Your task to perform on an android device: change the clock display to analog Image 0: 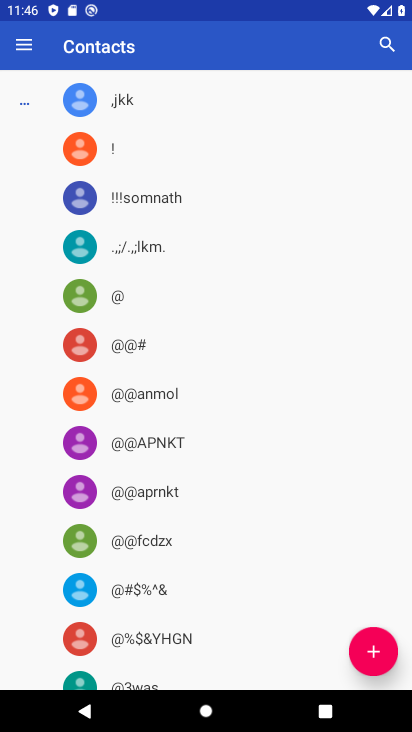
Step 0: press home button
Your task to perform on an android device: change the clock display to analog Image 1: 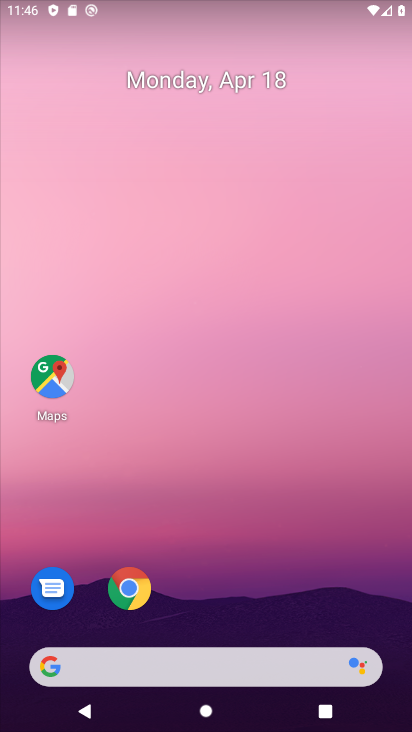
Step 1: drag from (366, 599) to (341, 97)
Your task to perform on an android device: change the clock display to analog Image 2: 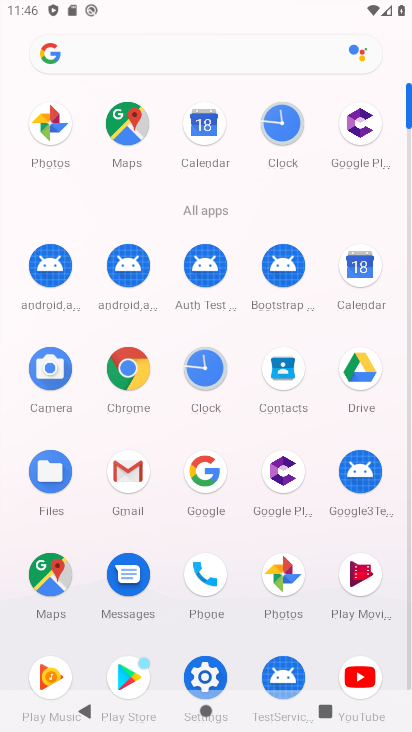
Step 2: click (279, 124)
Your task to perform on an android device: change the clock display to analog Image 3: 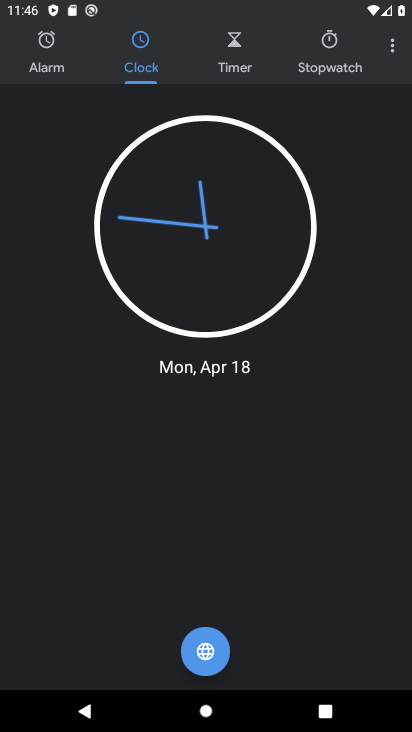
Step 3: click (392, 47)
Your task to perform on an android device: change the clock display to analog Image 4: 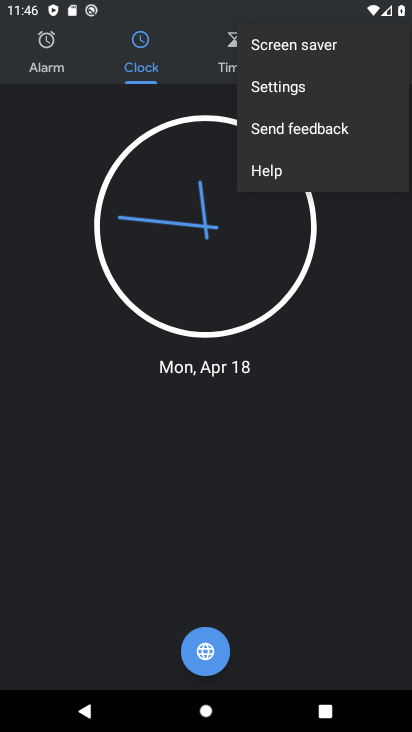
Step 4: click (296, 86)
Your task to perform on an android device: change the clock display to analog Image 5: 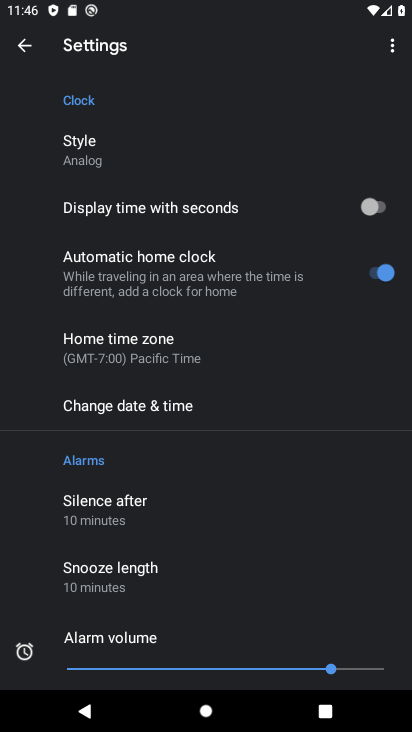
Step 5: task complete